Your task to perform on an android device: clear history in the chrome app Image 0: 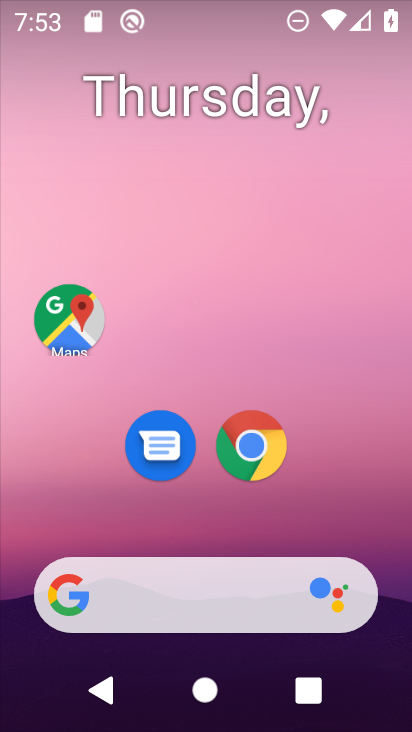
Step 0: click (259, 443)
Your task to perform on an android device: clear history in the chrome app Image 1: 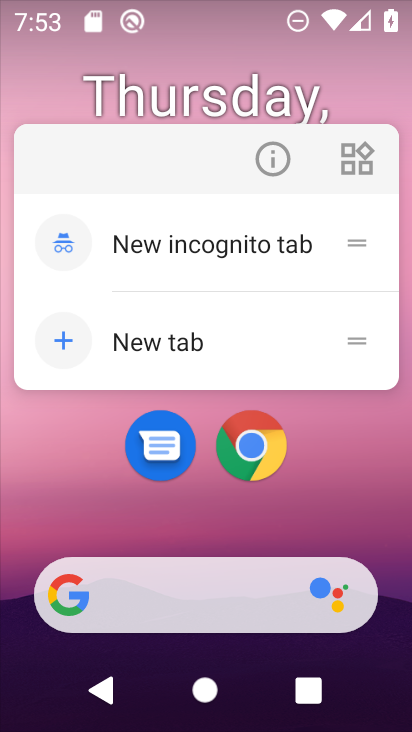
Step 1: click (256, 463)
Your task to perform on an android device: clear history in the chrome app Image 2: 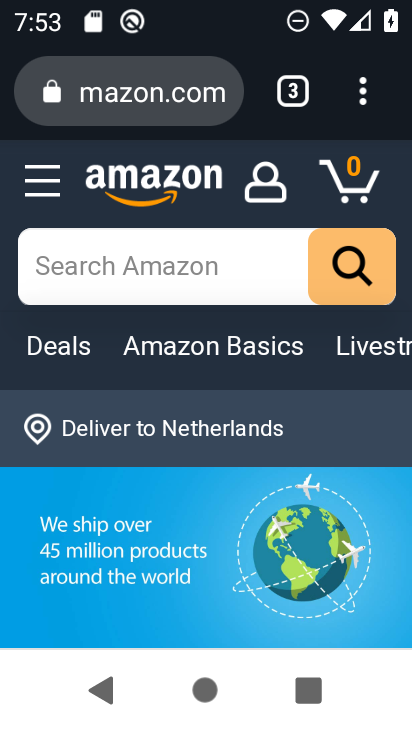
Step 2: click (369, 88)
Your task to perform on an android device: clear history in the chrome app Image 3: 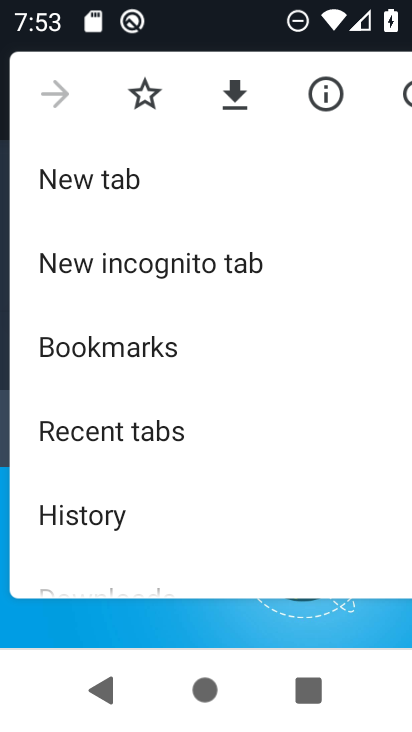
Step 3: click (84, 516)
Your task to perform on an android device: clear history in the chrome app Image 4: 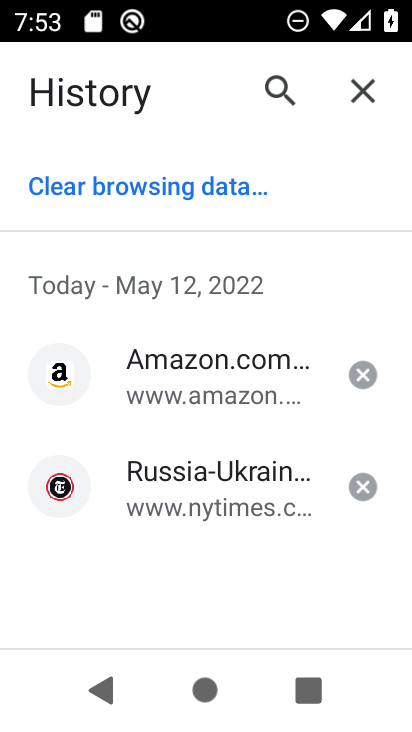
Step 4: click (123, 191)
Your task to perform on an android device: clear history in the chrome app Image 5: 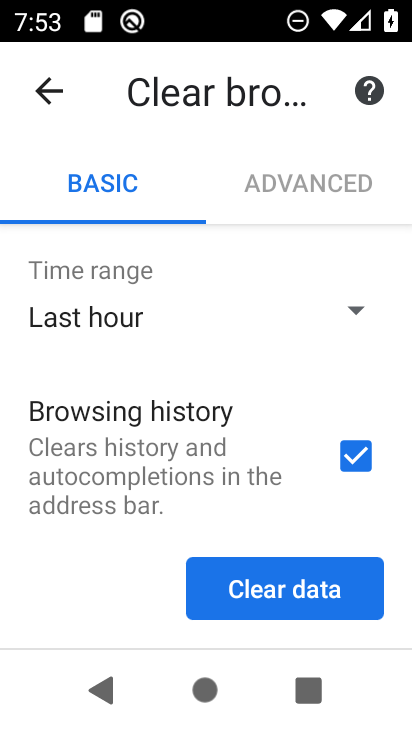
Step 5: drag from (230, 449) to (210, 129)
Your task to perform on an android device: clear history in the chrome app Image 6: 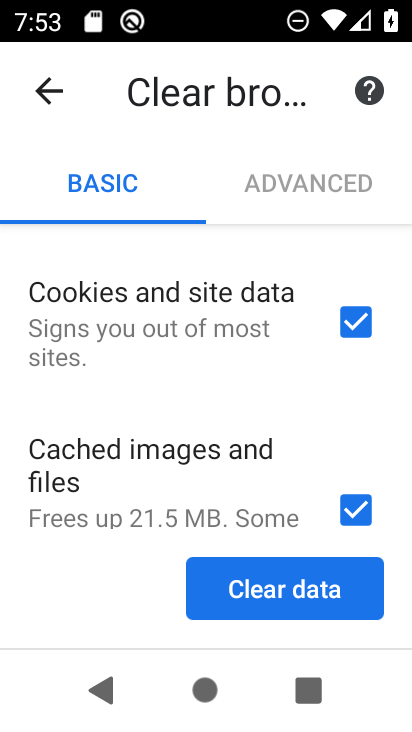
Step 6: drag from (142, 288) to (110, 497)
Your task to perform on an android device: clear history in the chrome app Image 7: 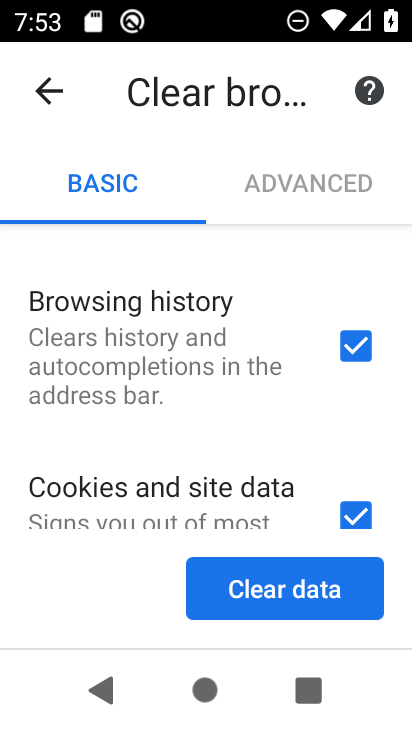
Step 7: click (343, 514)
Your task to perform on an android device: clear history in the chrome app Image 8: 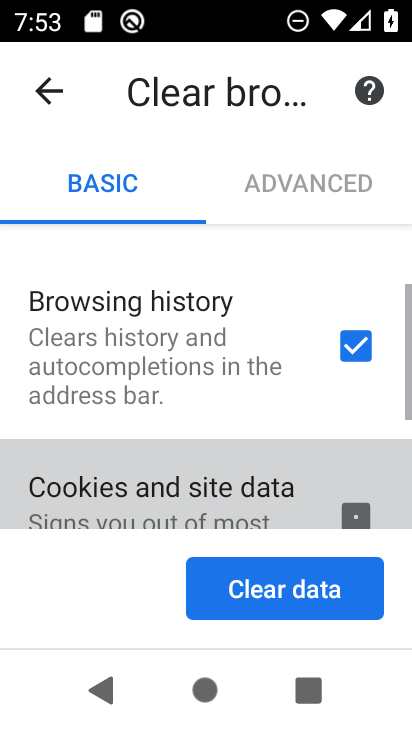
Step 8: drag from (107, 475) to (104, 175)
Your task to perform on an android device: clear history in the chrome app Image 9: 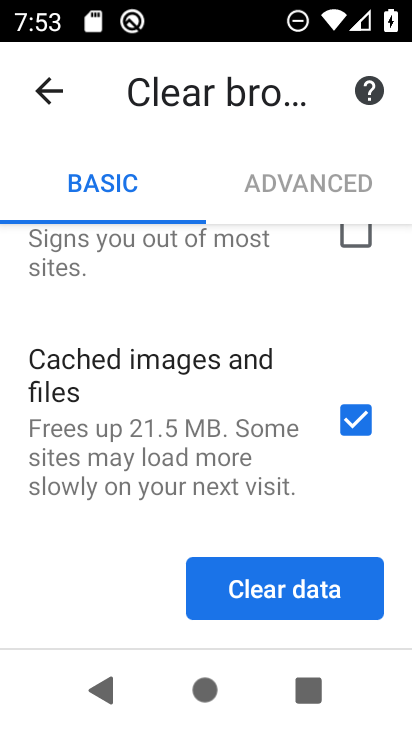
Step 9: click (351, 418)
Your task to perform on an android device: clear history in the chrome app Image 10: 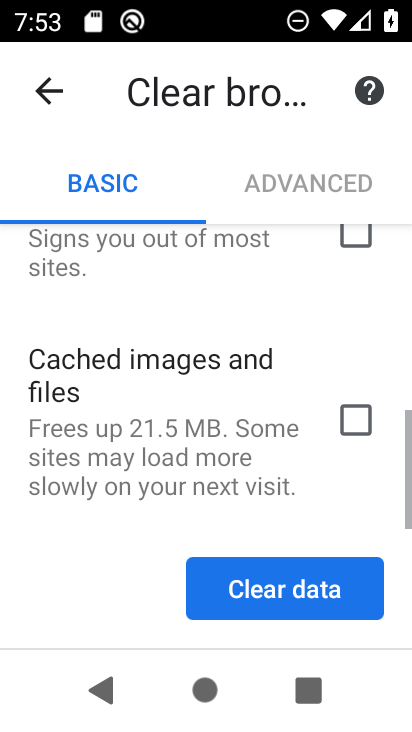
Step 10: click (294, 600)
Your task to perform on an android device: clear history in the chrome app Image 11: 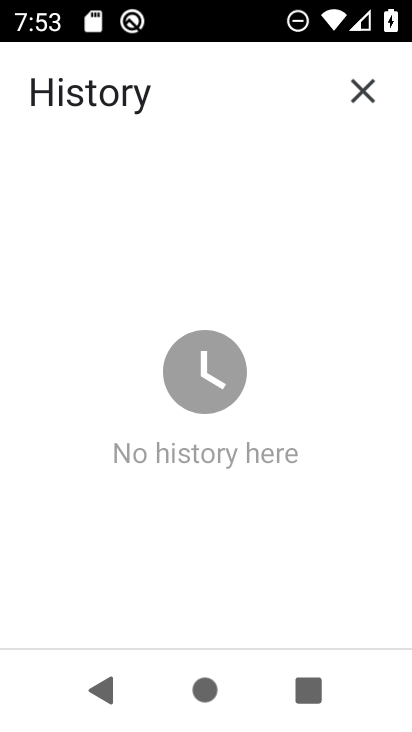
Step 11: task complete